Your task to perform on an android device: Clear the cart on costco.com. Add acer predator to the cart on costco.com, then select checkout. Image 0: 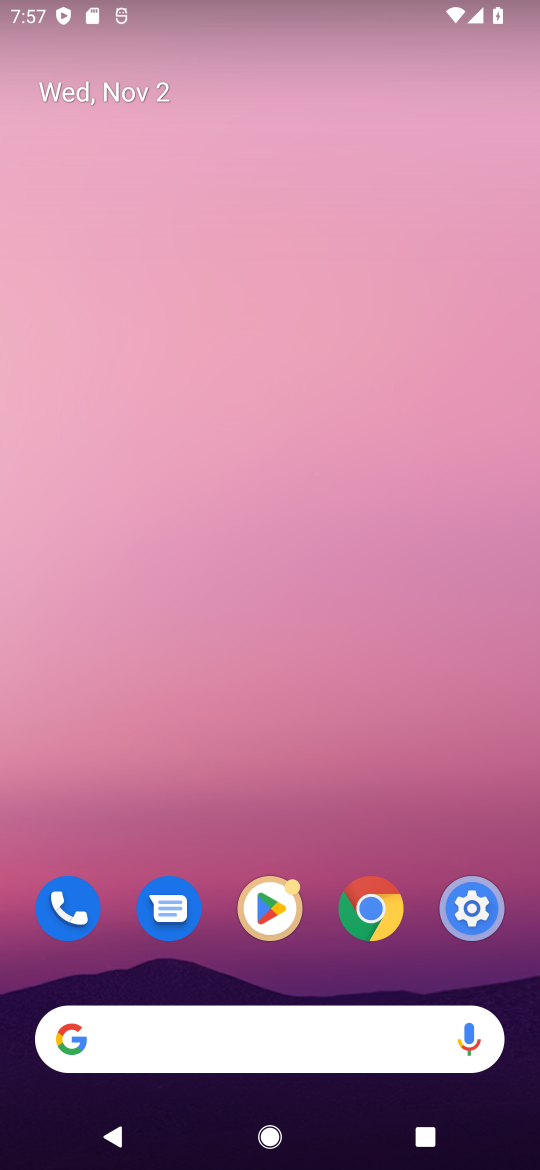
Step 0: click (271, 1040)
Your task to perform on an android device: Clear the cart on costco.com. Add acer predator to the cart on costco.com, then select checkout. Image 1: 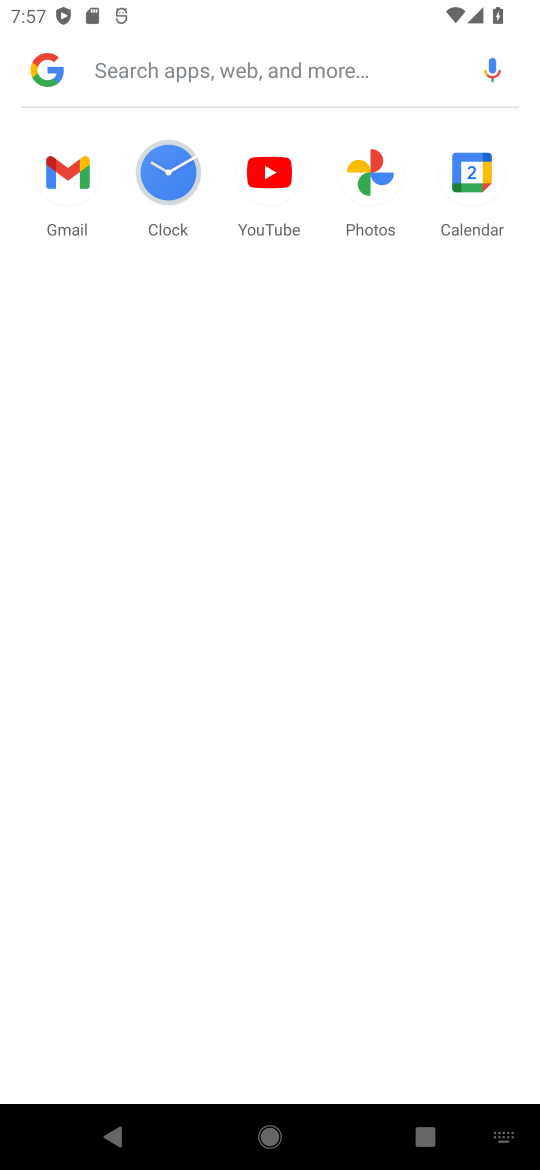
Step 1: type "costco.com"
Your task to perform on an android device: Clear the cart on costco.com. Add acer predator to the cart on costco.com, then select checkout. Image 2: 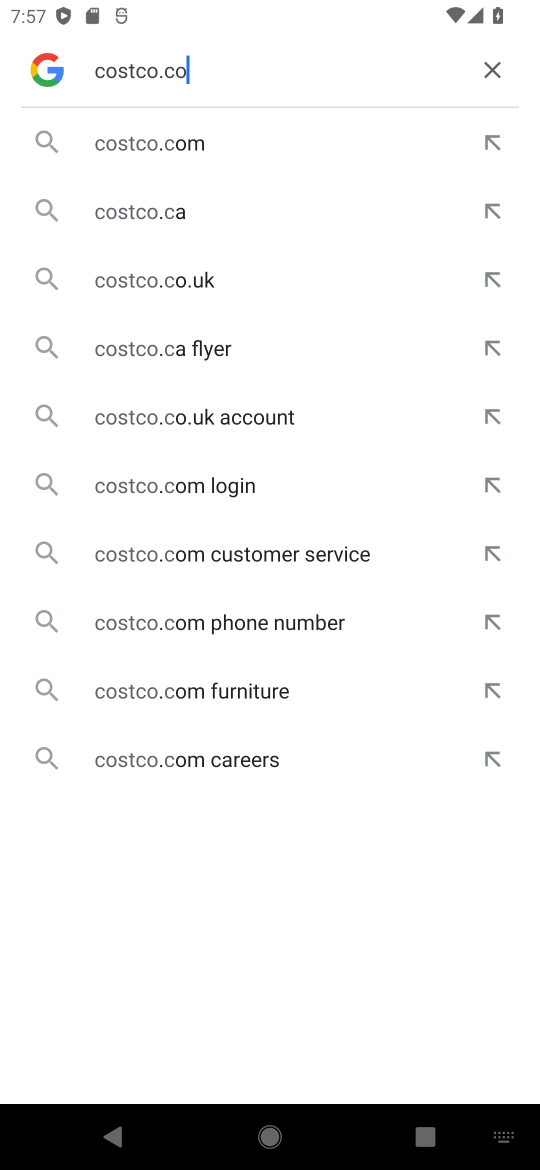
Step 2: type ""
Your task to perform on an android device: Clear the cart on costco.com. Add acer predator to the cart on costco.com, then select checkout. Image 3: 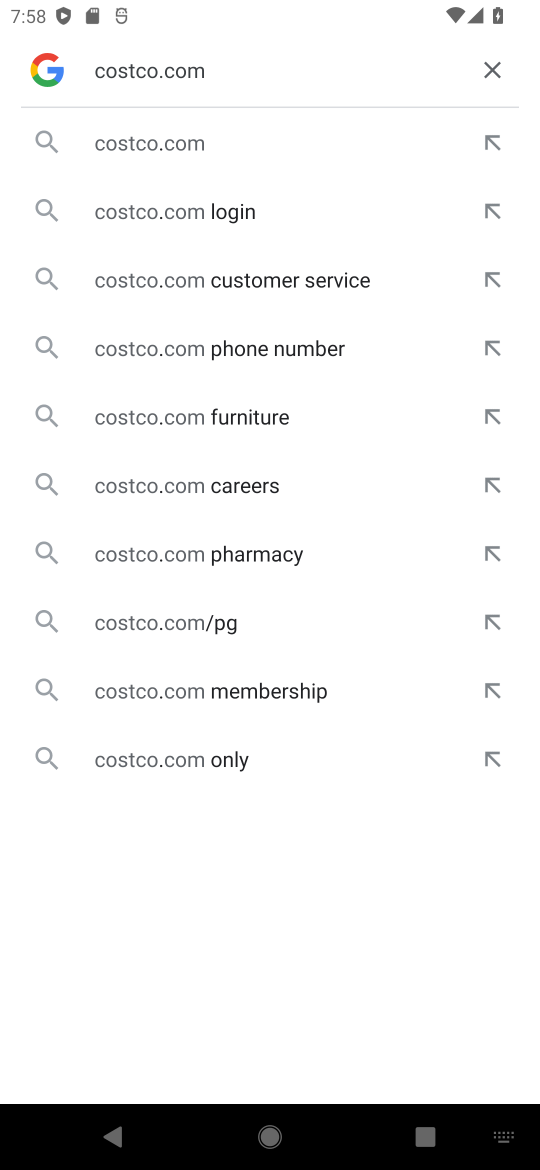
Step 3: press enter
Your task to perform on an android device: Clear the cart on costco.com. Add acer predator to the cart on costco.com, then select checkout. Image 4: 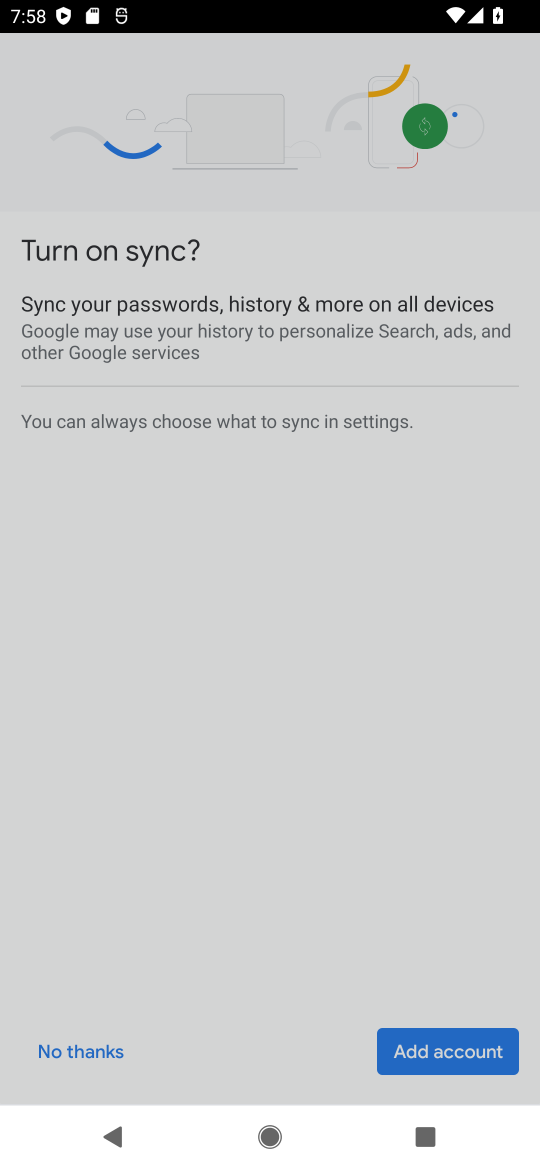
Step 4: click (60, 1055)
Your task to perform on an android device: Clear the cart on costco.com. Add acer predator to the cart on costco.com, then select checkout. Image 5: 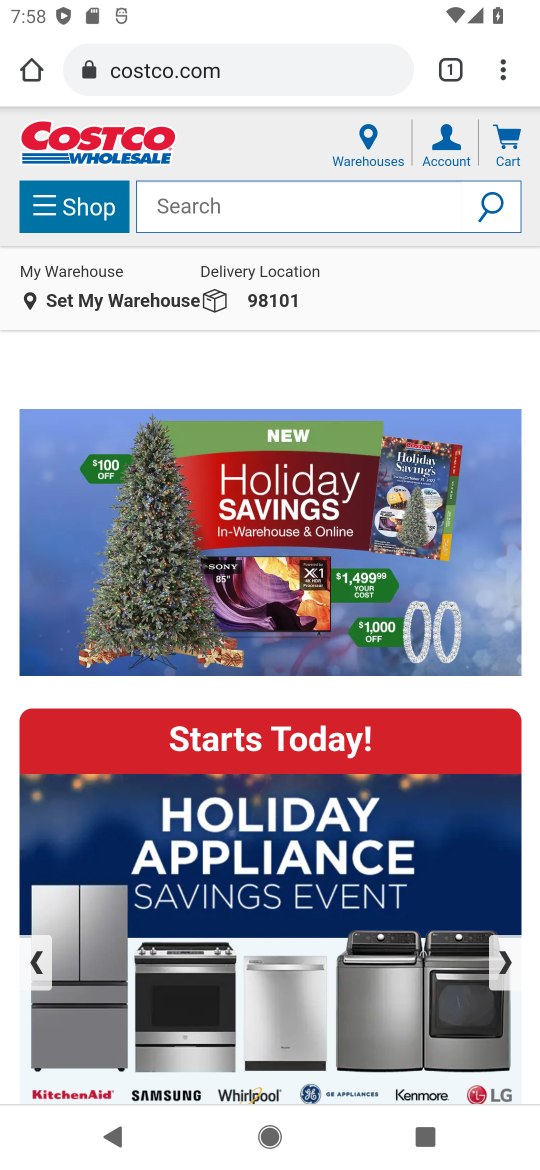
Step 5: click (274, 207)
Your task to perform on an android device: Clear the cart on costco.com. Add acer predator to the cart on costco.com, then select checkout. Image 6: 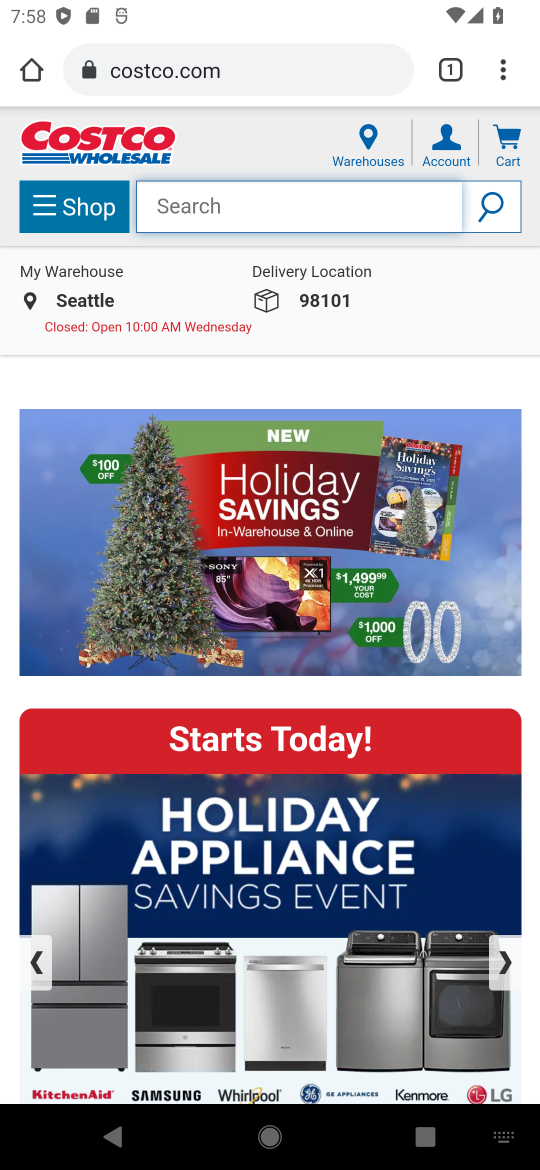
Step 6: type "acer predator"
Your task to perform on an android device: Clear the cart on costco.com. Add acer predator to the cart on costco.com, then select checkout. Image 7: 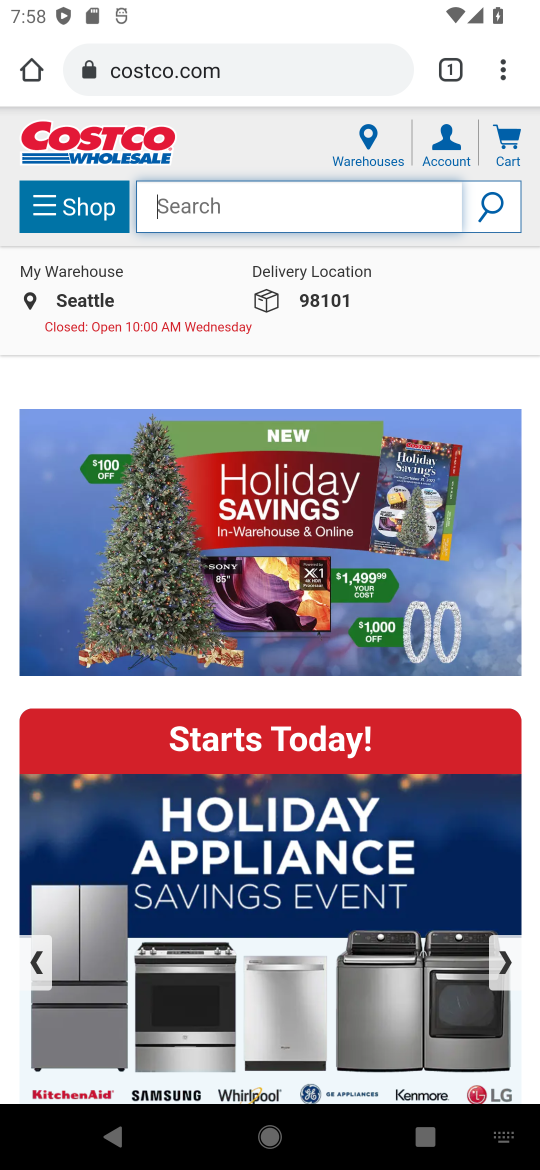
Step 7: type ""
Your task to perform on an android device: Clear the cart on costco.com. Add acer predator to the cart on costco.com, then select checkout. Image 8: 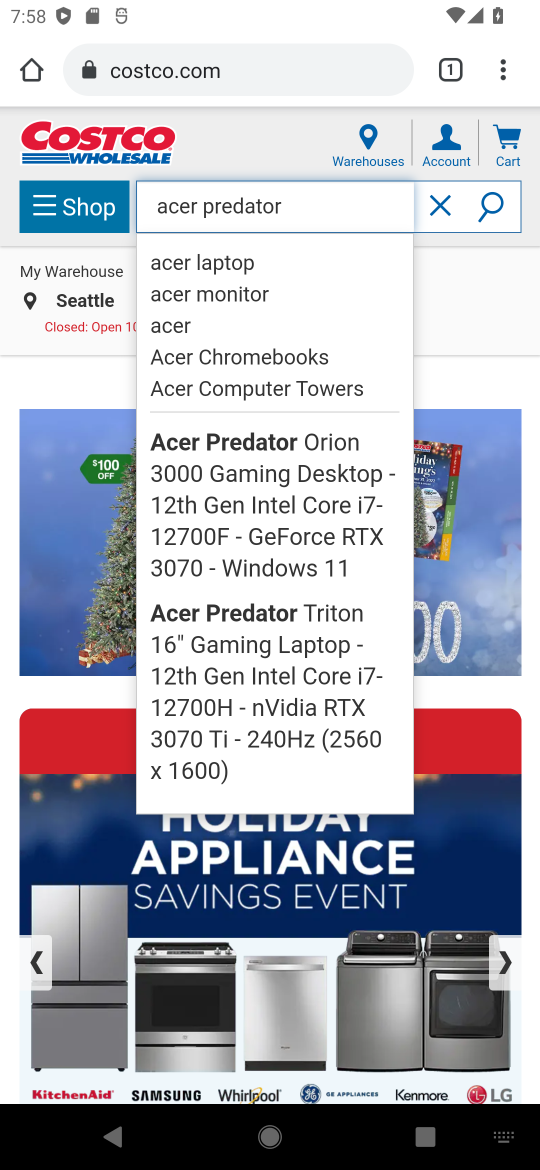
Step 8: press enter
Your task to perform on an android device: Clear the cart on costco.com. Add acer predator to the cart on costco.com, then select checkout. Image 9: 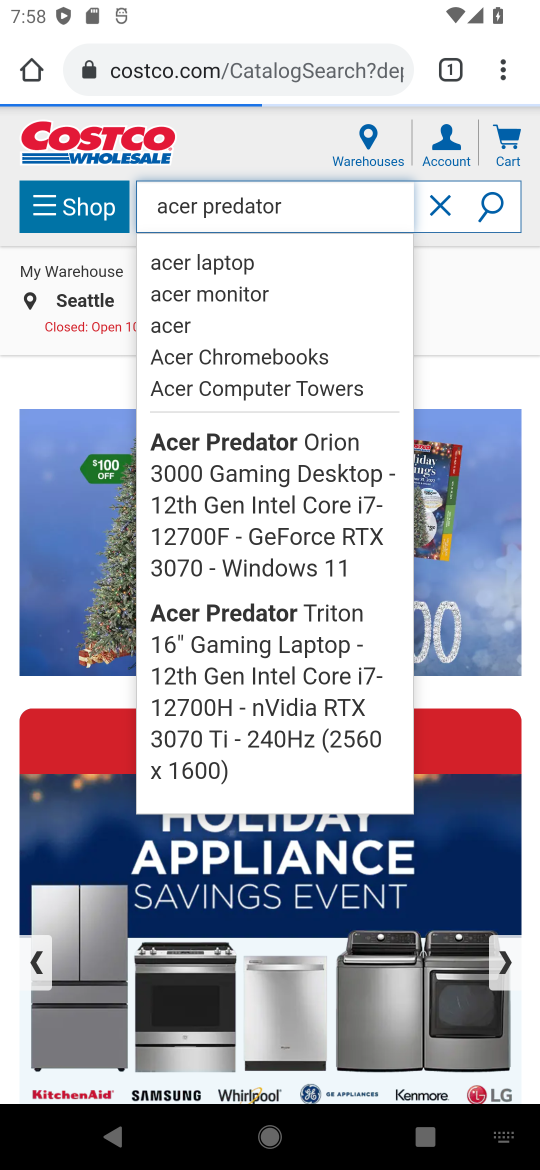
Step 9: press enter
Your task to perform on an android device: Clear the cart on costco.com. Add acer predator to the cart on costco.com, then select checkout. Image 10: 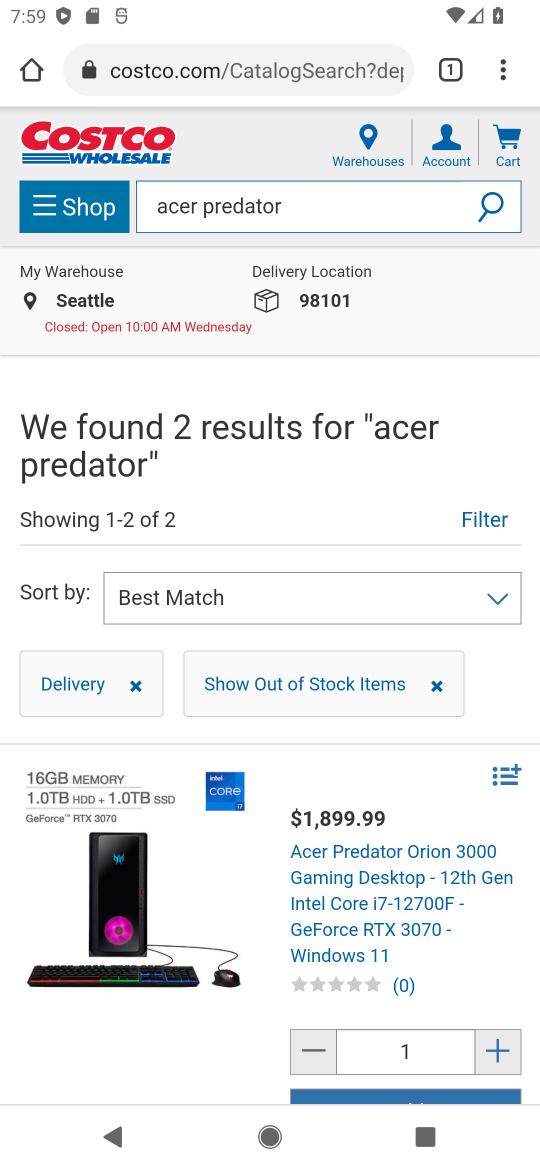
Step 10: click (482, 212)
Your task to perform on an android device: Clear the cart on costco.com. Add acer predator to the cart on costco.com, then select checkout. Image 11: 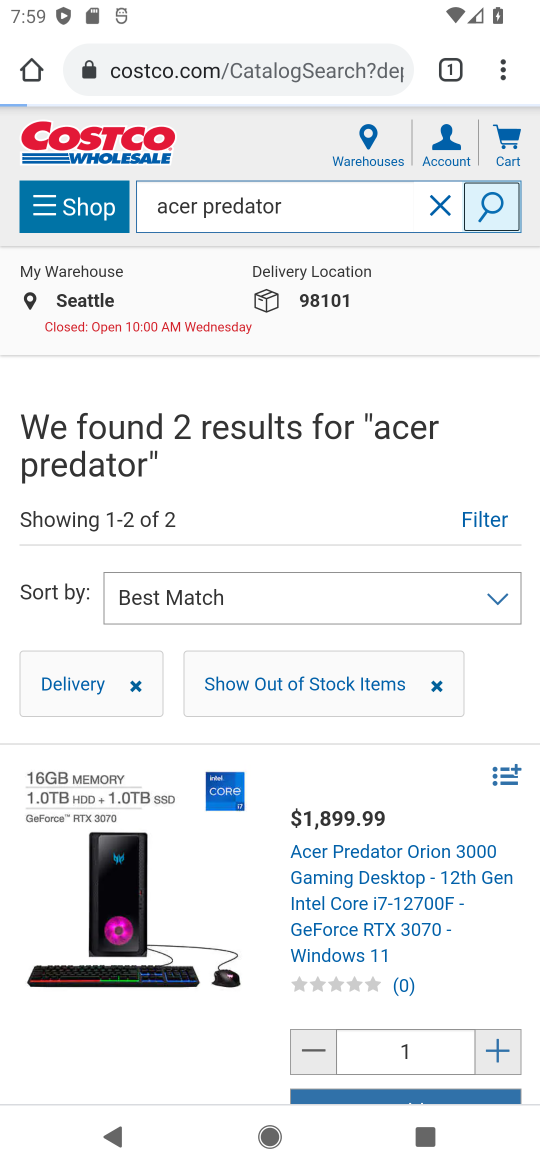
Step 11: click (398, 865)
Your task to perform on an android device: Clear the cart on costco.com. Add acer predator to the cart on costco.com, then select checkout. Image 12: 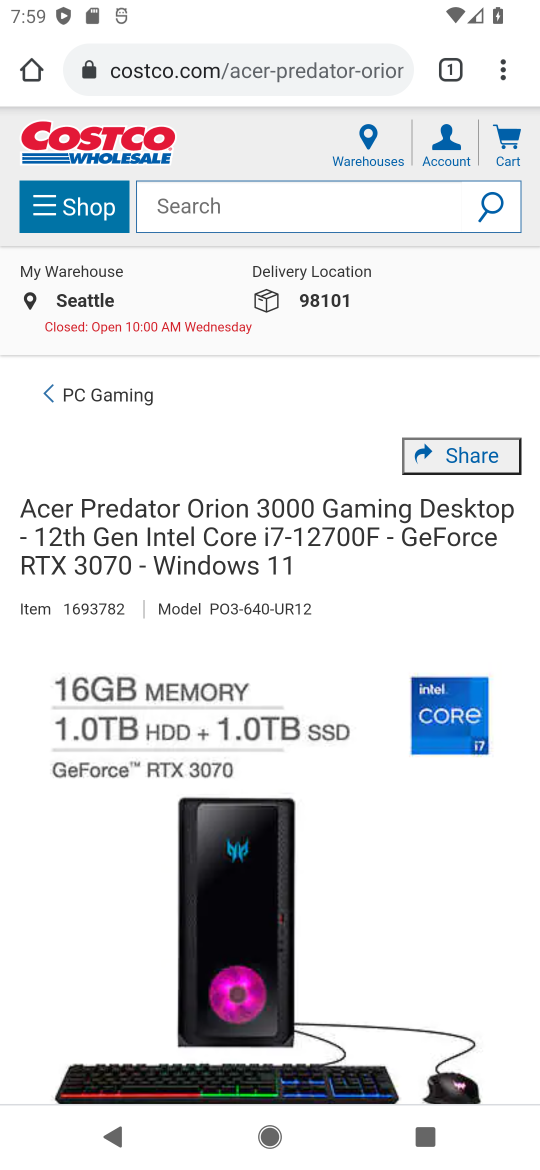
Step 12: drag from (364, 864) to (233, 355)
Your task to perform on an android device: Clear the cart on costco.com. Add acer predator to the cart on costco.com, then select checkout. Image 13: 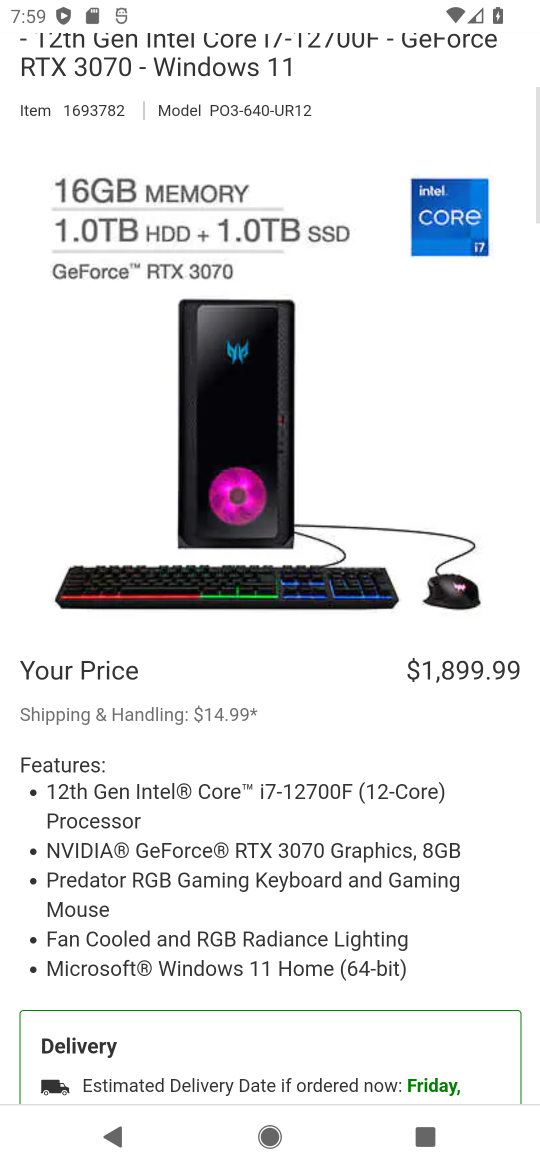
Step 13: drag from (309, 875) to (223, 445)
Your task to perform on an android device: Clear the cart on costco.com. Add acer predator to the cart on costco.com, then select checkout. Image 14: 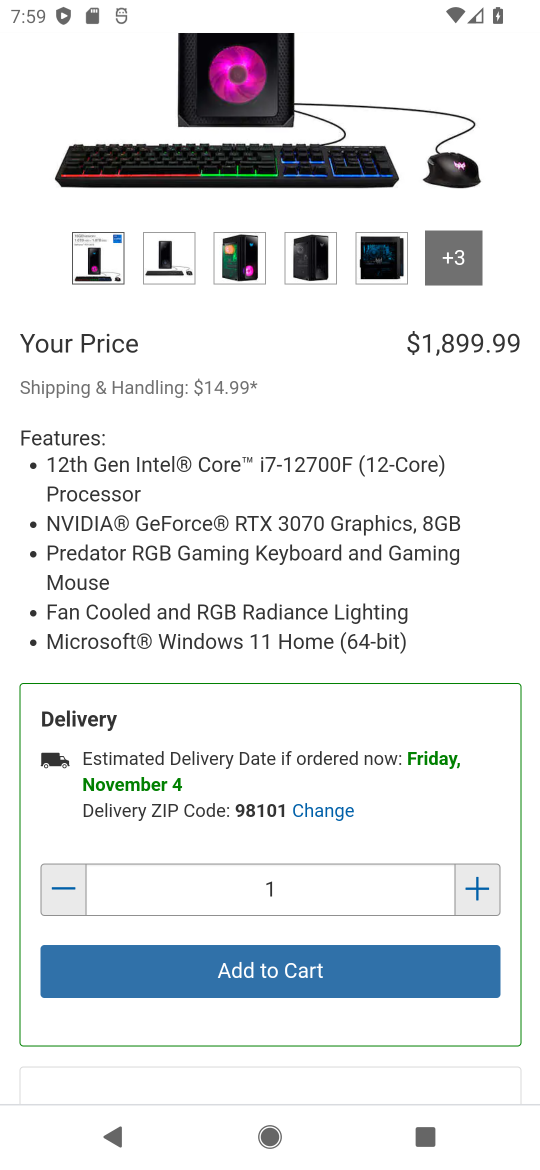
Step 14: click (338, 896)
Your task to perform on an android device: Clear the cart on costco.com. Add acer predator to the cart on costco.com, then select checkout. Image 15: 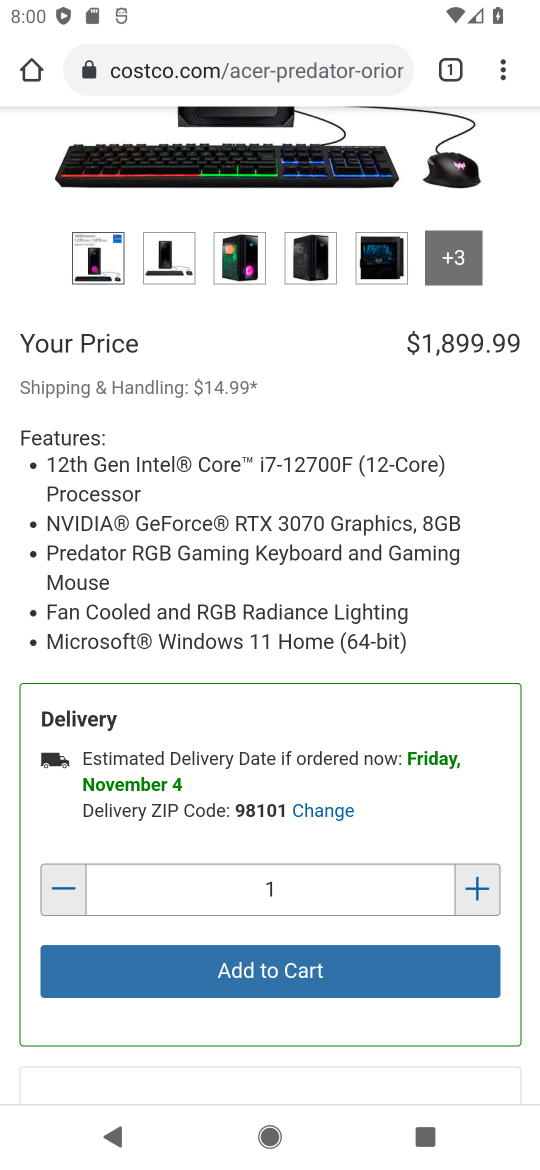
Step 15: click (249, 962)
Your task to perform on an android device: Clear the cart on costco.com. Add acer predator to the cart on costco.com, then select checkout. Image 16: 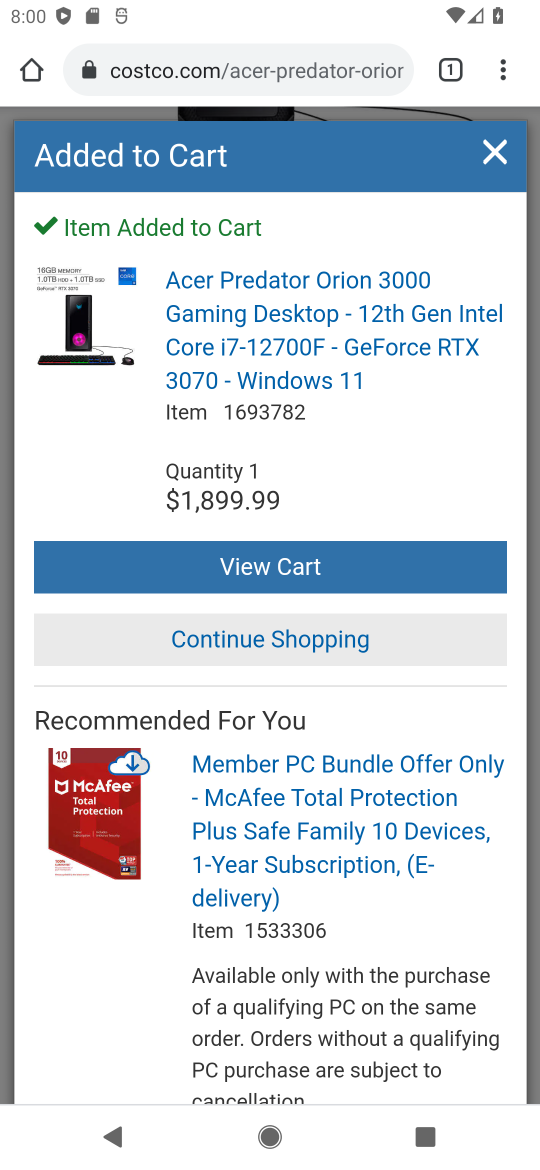
Step 16: click (273, 568)
Your task to perform on an android device: Clear the cart on costco.com. Add acer predator to the cart on costco.com, then select checkout. Image 17: 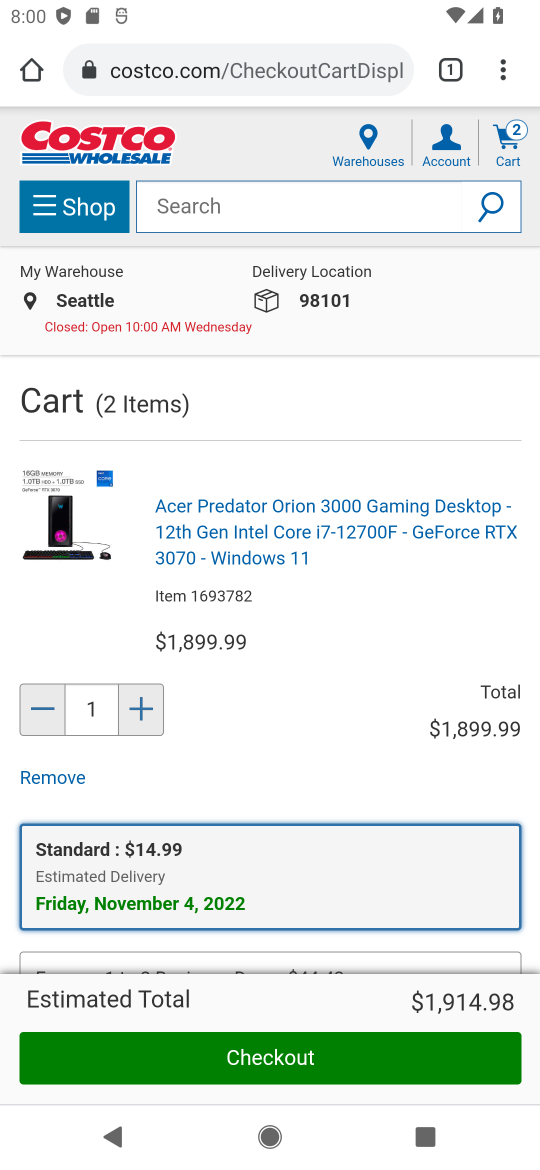
Step 17: click (310, 1050)
Your task to perform on an android device: Clear the cart on costco.com. Add acer predator to the cart on costco.com, then select checkout. Image 18: 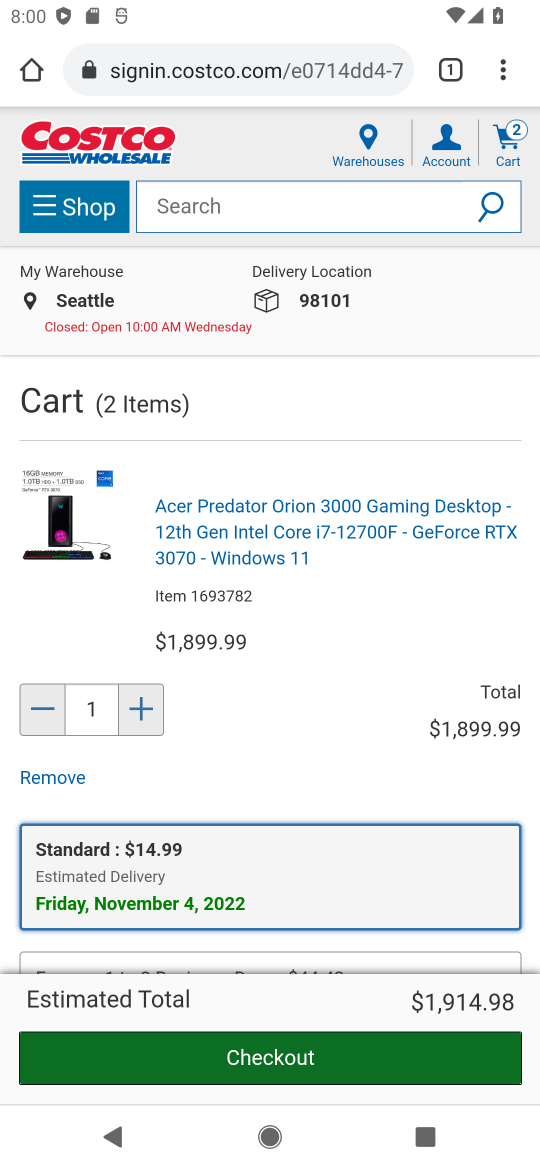
Step 18: click (281, 1052)
Your task to perform on an android device: Clear the cart on costco.com. Add acer predator to the cart on costco.com, then select checkout. Image 19: 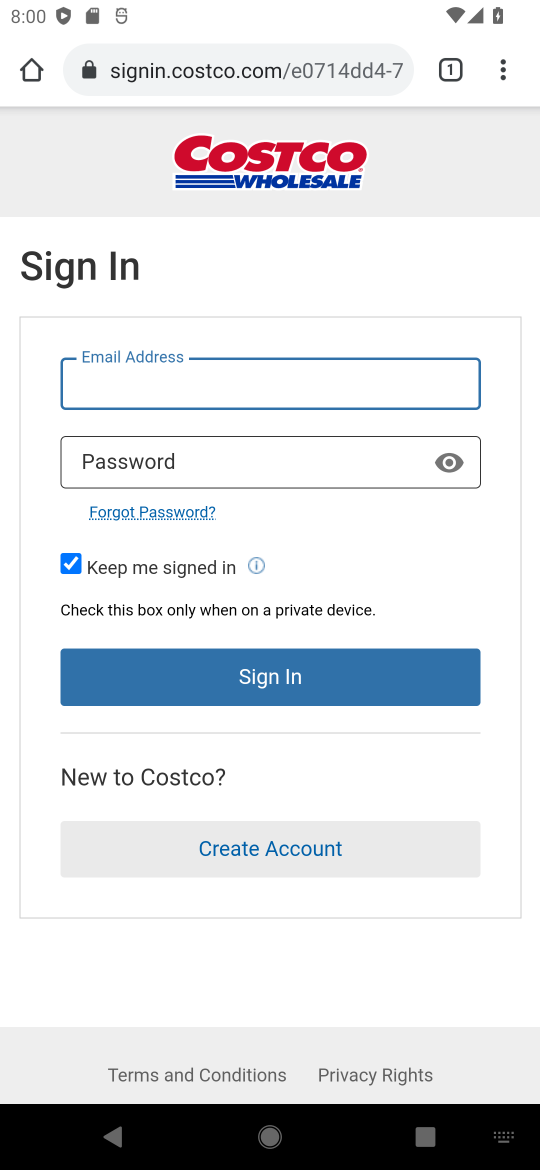
Step 19: task complete